Your task to perform on an android device: Search for a home improvement project you can do. Image 0: 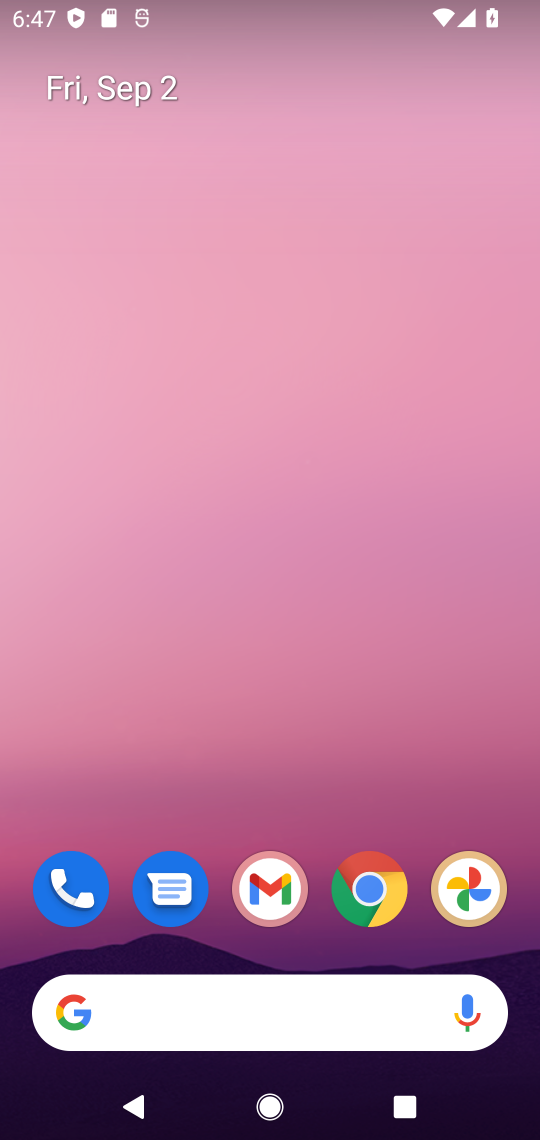
Step 0: click (283, 1020)
Your task to perform on an android device: Search for a home improvement project you can do. Image 1: 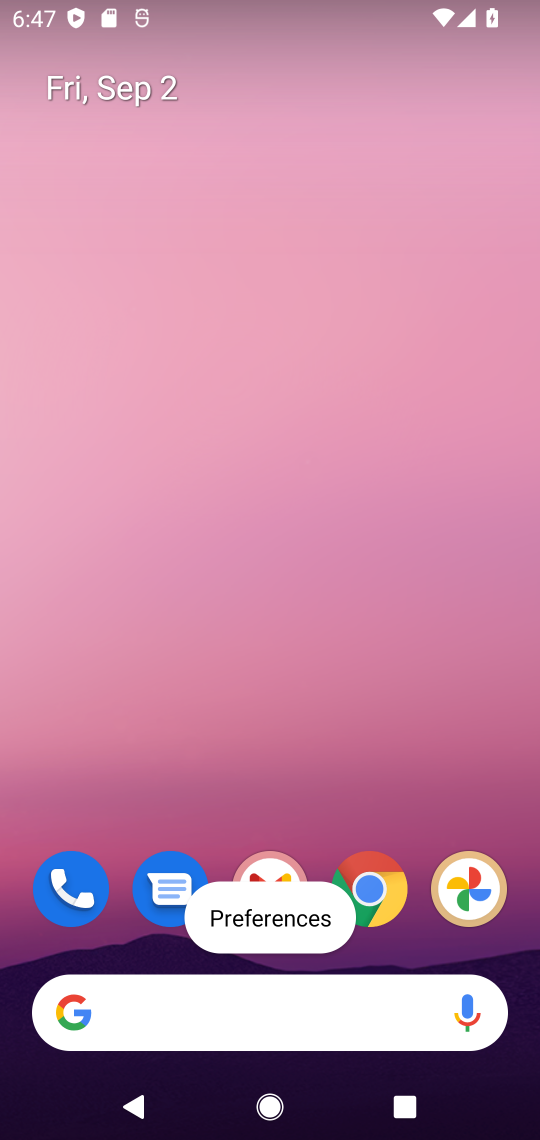
Step 1: click (300, 1012)
Your task to perform on an android device: Search for a home improvement project you can do. Image 2: 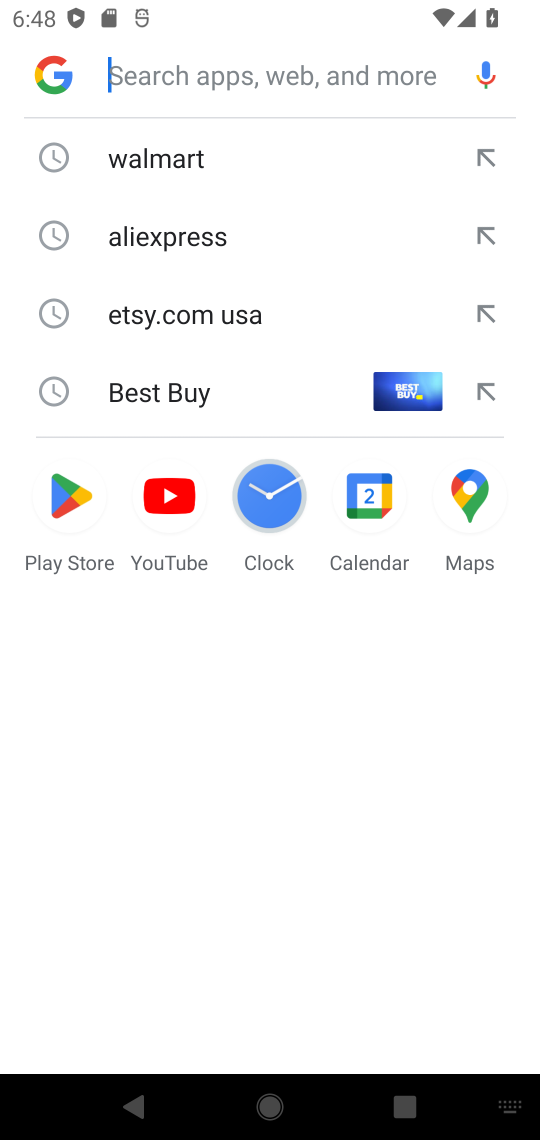
Step 2: type "home improvement project"
Your task to perform on an android device: Search for a home improvement project you can do. Image 3: 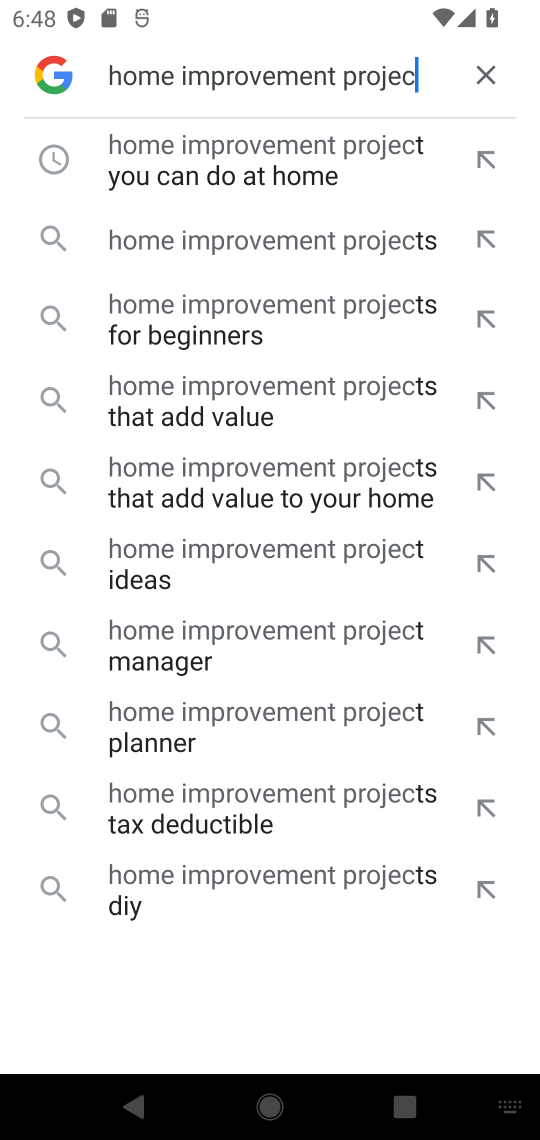
Step 3: type ""
Your task to perform on an android device: Search for a home improvement project you can do. Image 4: 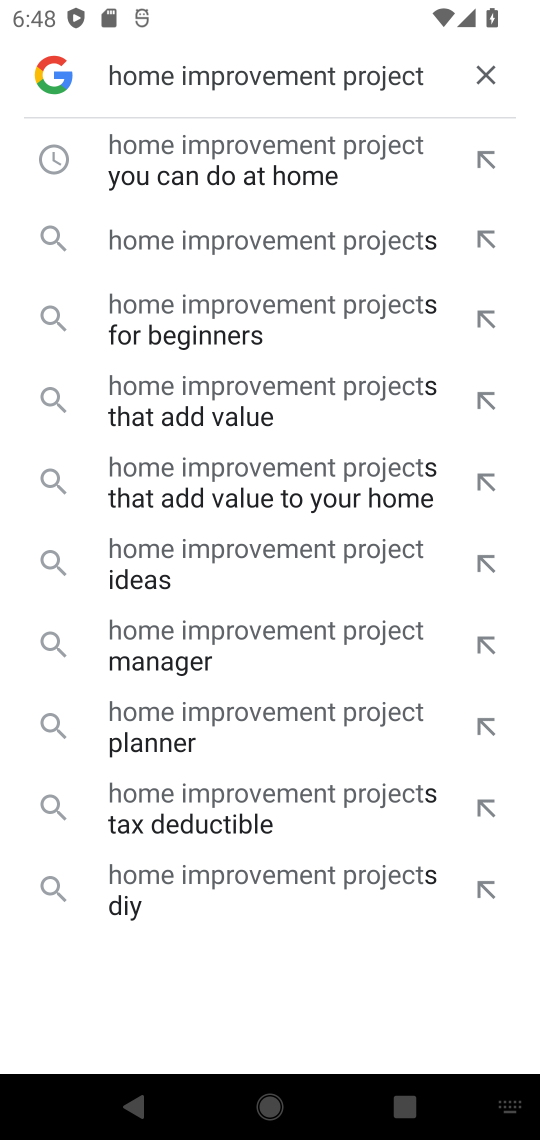
Step 4: click (215, 185)
Your task to perform on an android device: Search for a home improvement project you can do. Image 5: 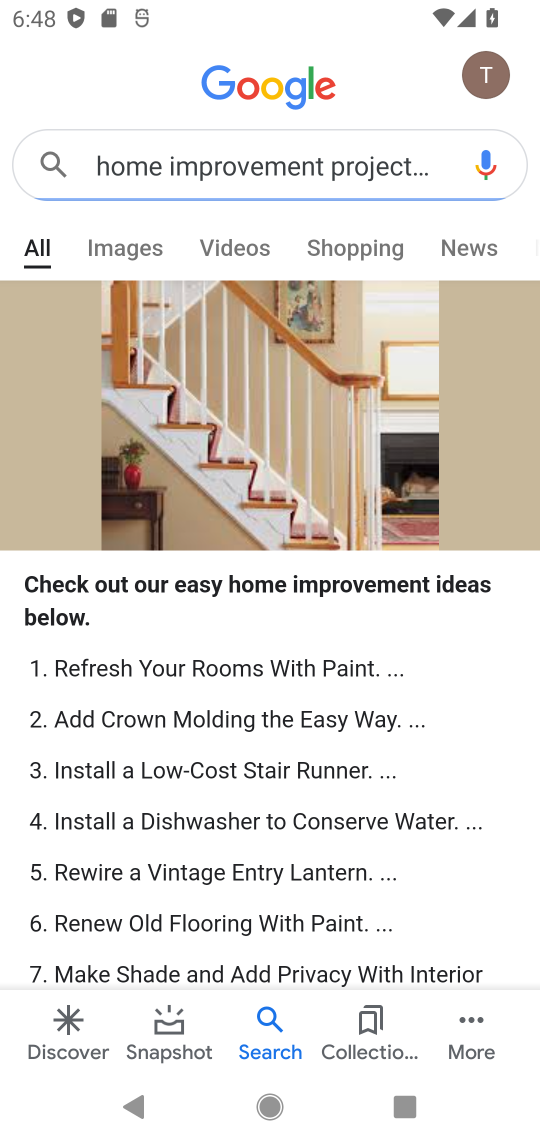
Step 5: task complete